Your task to perform on an android device: Open Google Maps and go to "Timeline" Image 0: 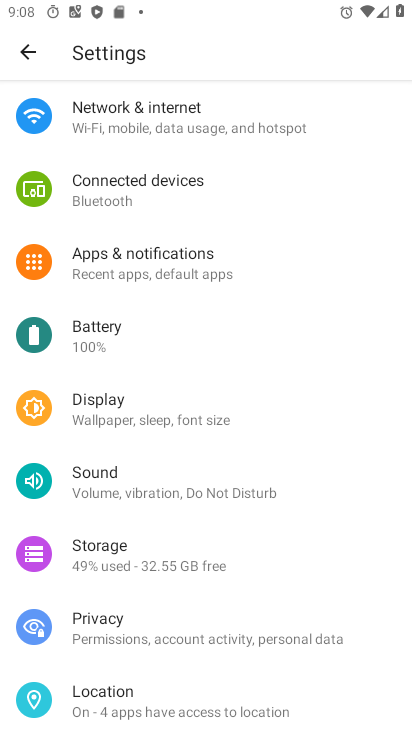
Step 0: press home button
Your task to perform on an android device: Open Google Maps and go to "Timeline" Image 1: 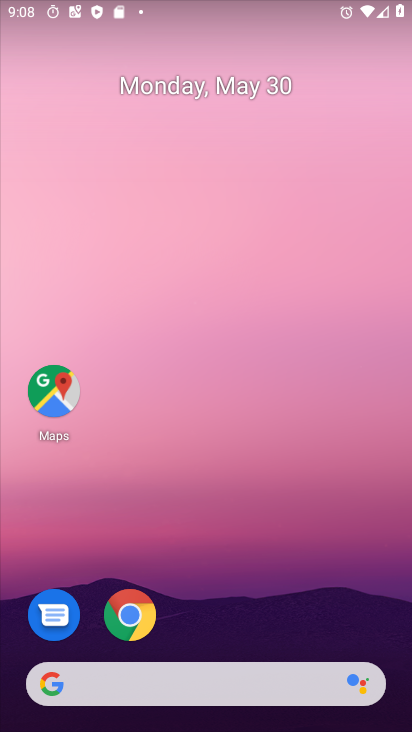
Step 1: drag from (259, 510) to (215, 18)
Your task to perform on an android device: Open Google Maps and go to "Timeline" Image 2: 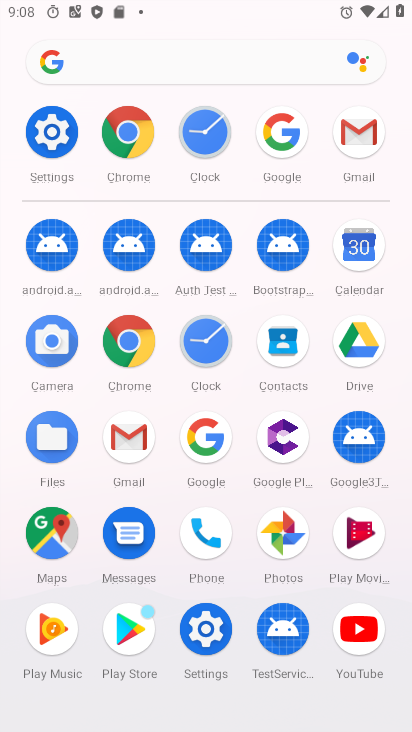
Step 2: click (39, 533)
Your task to perform on an android device: Open Google Maps and go to "Timeline" Image 3: 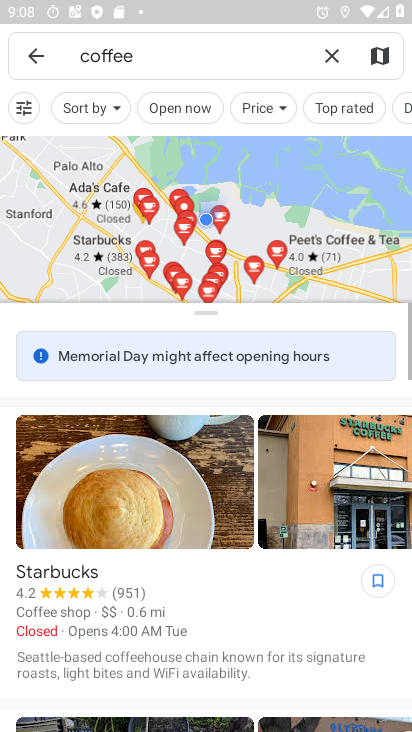
Step 3: drag from (197, 121) to (260, 584)
Your task to perform on an android device: Open Google Maps and go to "Timeline" Image 4: 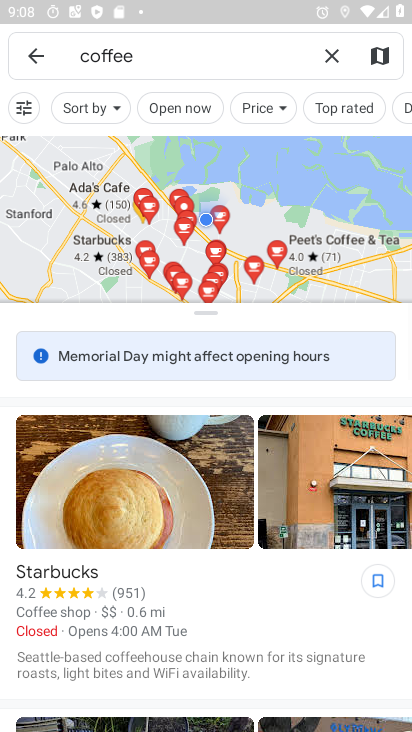
Step 4: click (21, 56)
Your task to perform on an android device: Open Google Maps and go to "Timeline" Image 5: 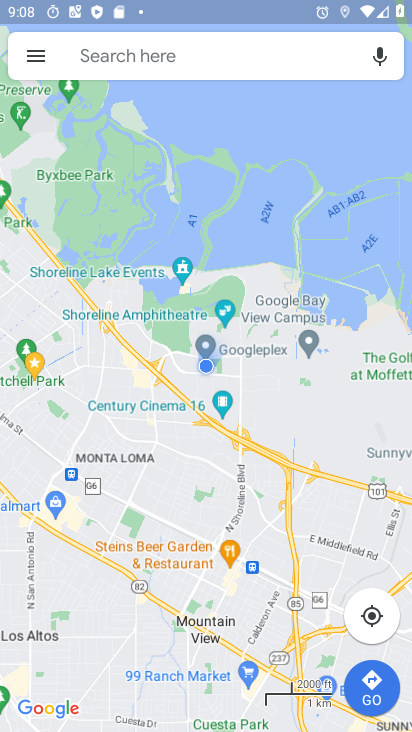
Step 5: click (21, 56)
Your task to perform on an android device: Open Google Maps and go to "Timeline" Image 6: 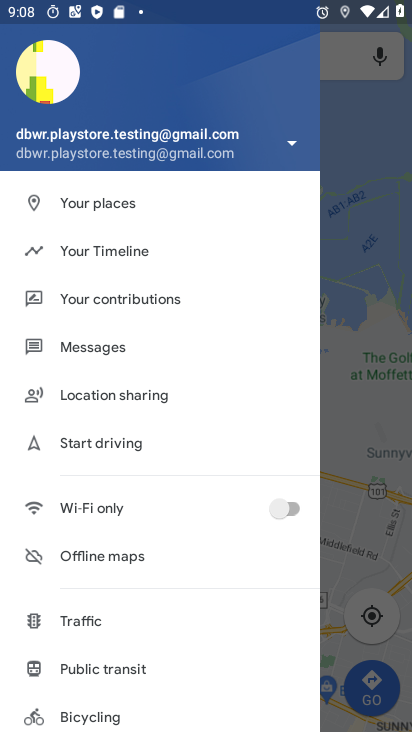
Step 6: click (99, 256)
Your task to perform on an android device: Open Google Maps and go to "Timeline" Image 7: 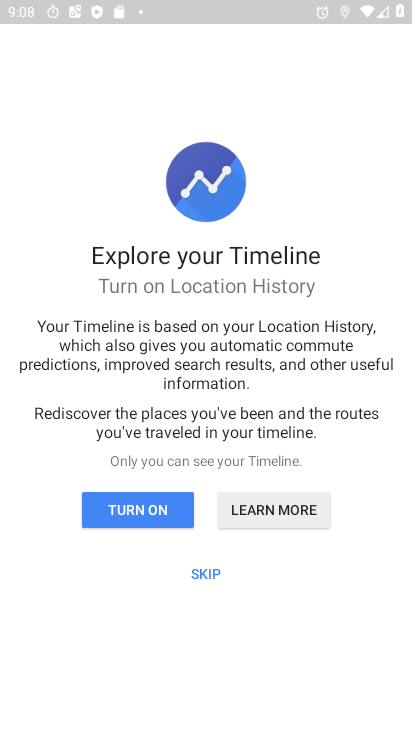
Step 7: click (210, 578)
Your task to perform on an android device: Open Google Maps and go to "Timeline" Image 8: 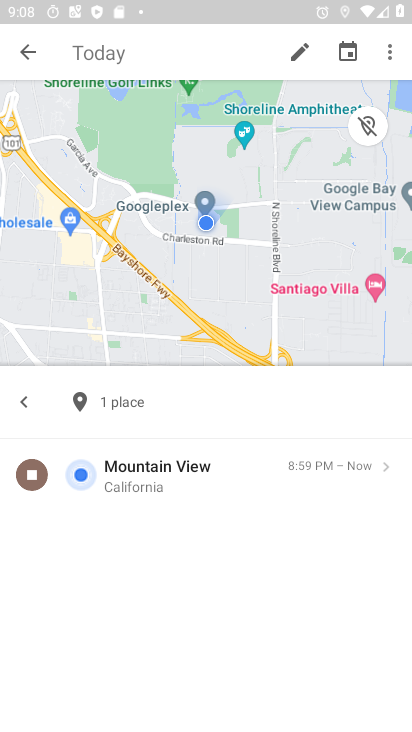
Step 8: task complete